Your task to perform on an android device: open chrome privacy settings Image 0: 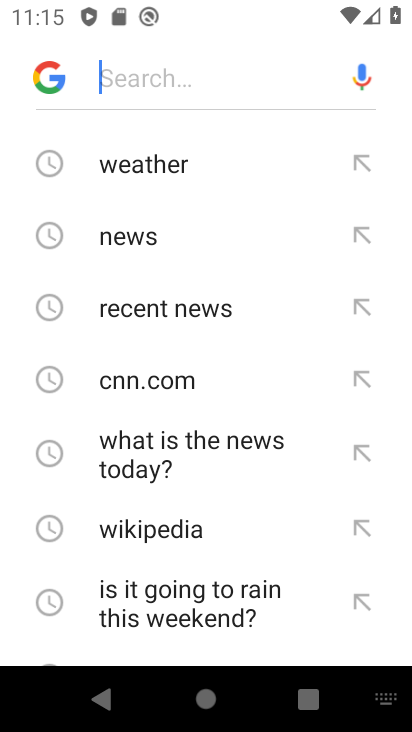
Step 0: press home button
Your task to perform on an android device: open chrome privacy settings Image 1: 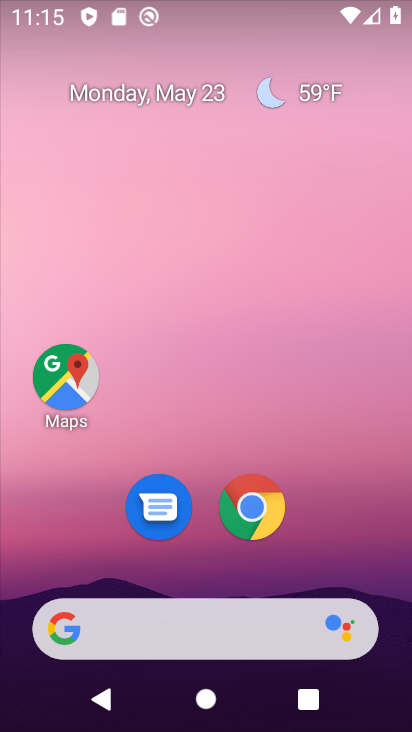
Step 1: click (358, 562)
Your task to perform on an android device: open chrome privacy settings Image 2: 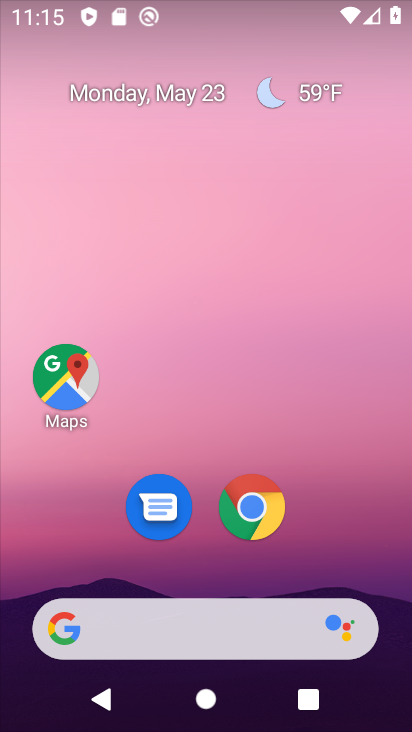
Step 2: drag from (357, 504) to (357, 441)
Your task to perform on an android device: open chrome privacy settings Image 3: 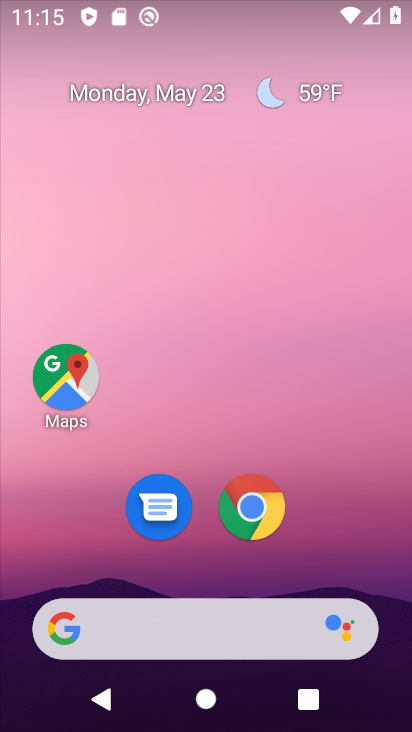
Step 3: drag from (211, 585) to (338, 62)
Your task to perform on an android device: open chrome privacy settings Image 4: 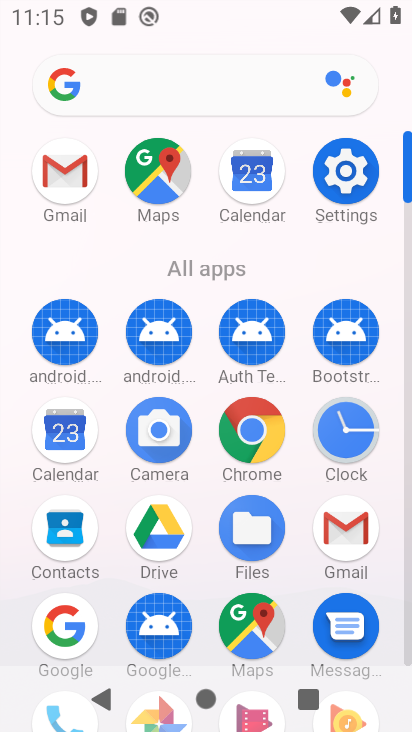
Step 4: click (347, 171)
Your task to perform on an android device: open chrome privacy settings Image 5: 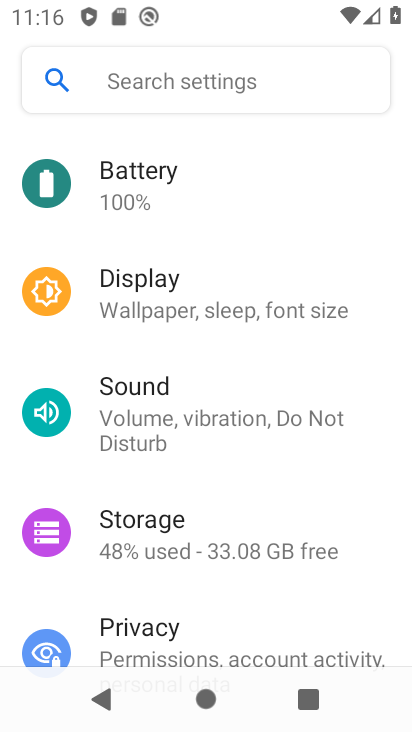
Step 5: press home button
Your task to perform on an android device: open chrome privacy settings Image 6: 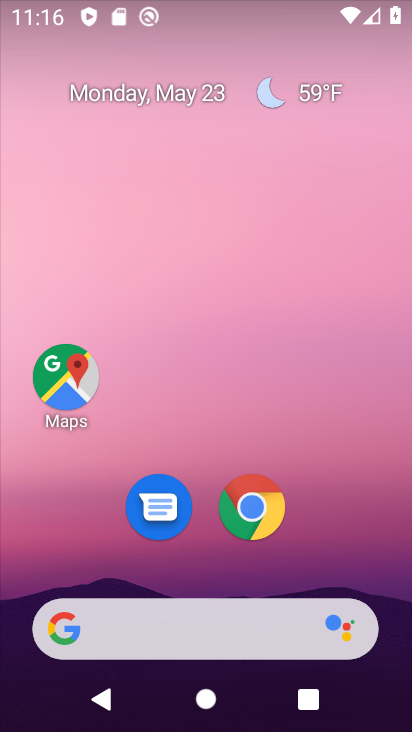
Step 6: click (259, 488)
Your task to perform on an android device: open chrome privacy settings Image 7: 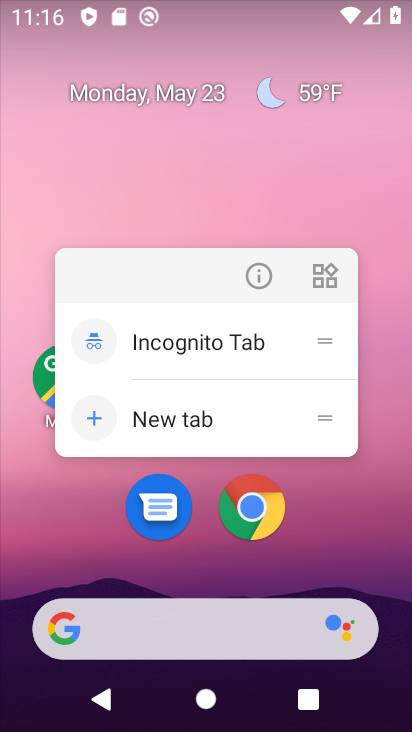
Step 7: click (242, 497)
Your task to perform on an android device: open chrome privacy settings Image 8: 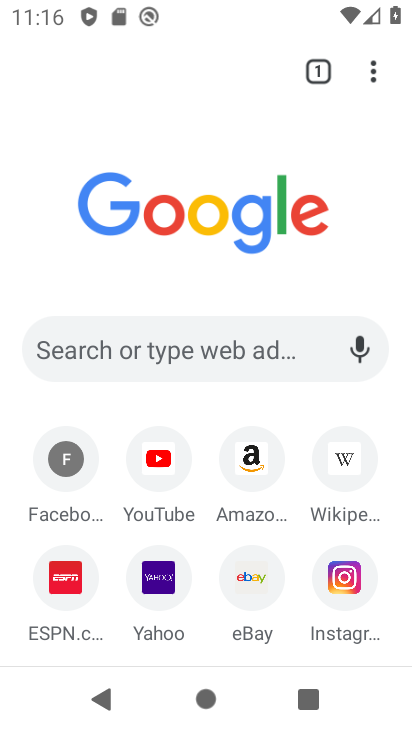
Step 8: click (387, 75)
Your task to perform on an android device: open chrome privacy settings Image 9: 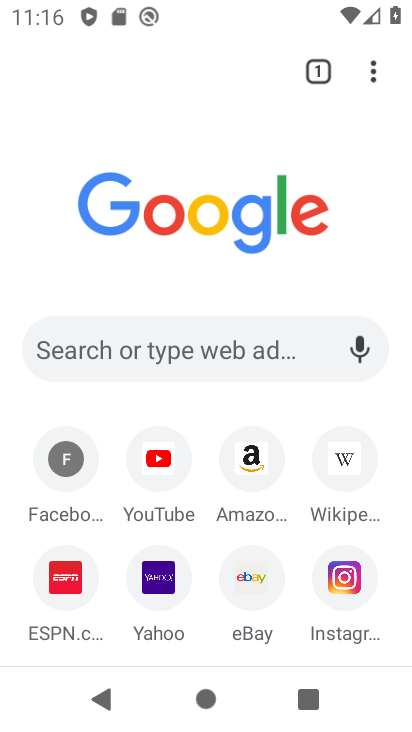
Step 9: click (372, 69)
Your task to perform on an android device: open chrome privacy settings Image 10: 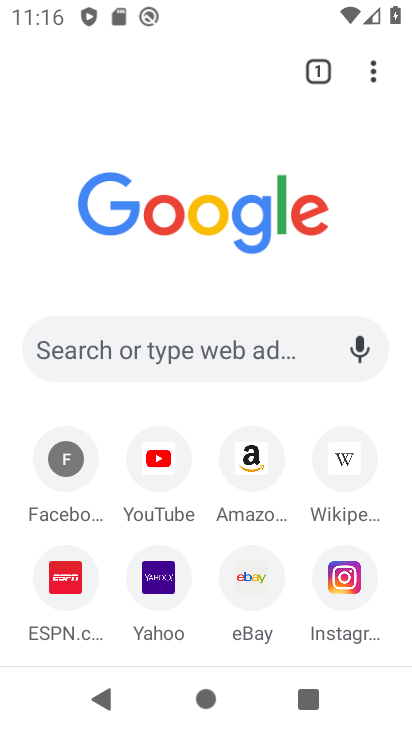
Step 10: click (365, 83)
Your task to perform on an android device: open chrome privacy settings Image 11: 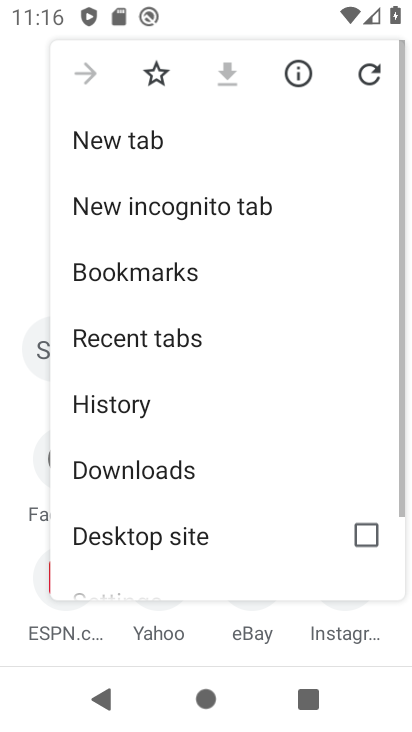
Step 11: drag from (216, 526) to (242, 205)
Your task to perform on an android device: open chrome privacy settings Image 12: 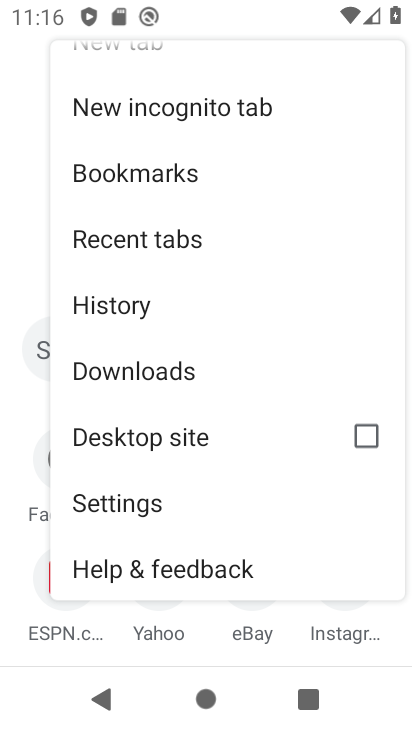
Step 12: click (210, 489)
Your task to perform on an android device: open chrome privacy settings Image 13: 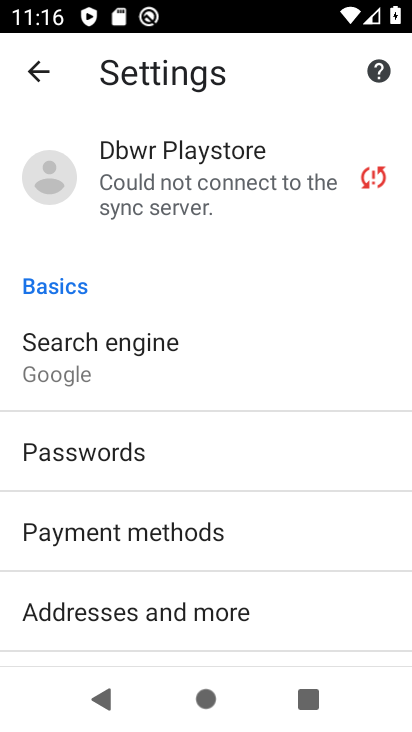
Step 13: drag from (246, 488) to (237, 259)
Your task to perform on an android device: open chrome privacy settings Image 14: 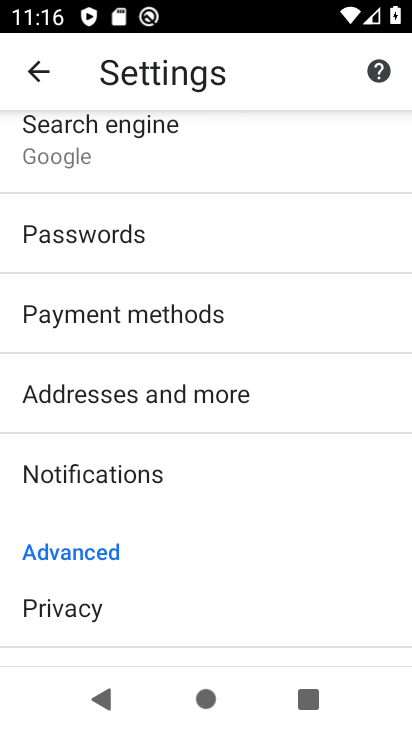
Step 14: click (140, 612)
Your task to perform on an android device: open chrome privacy settings Image 15: 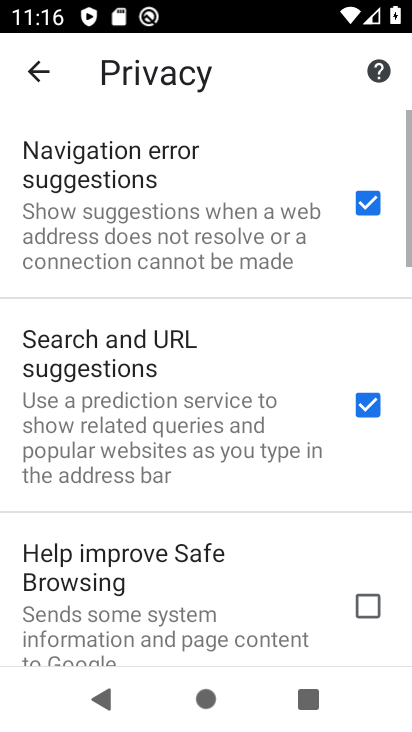
Step 15: task complete